Your task to perform on an android device: Open Google Chrome and click the shortcut for Amazon.com Image 0: 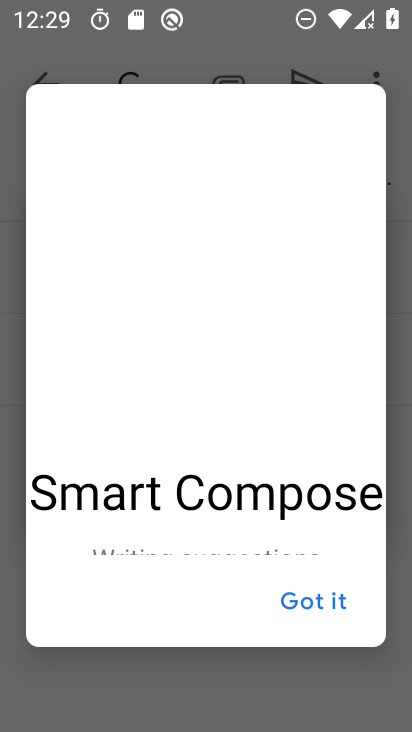
Step 0: press home button
Your task to perform on an android device: Open Google Chrome and click the shortcut for Amazon.com Image 1: 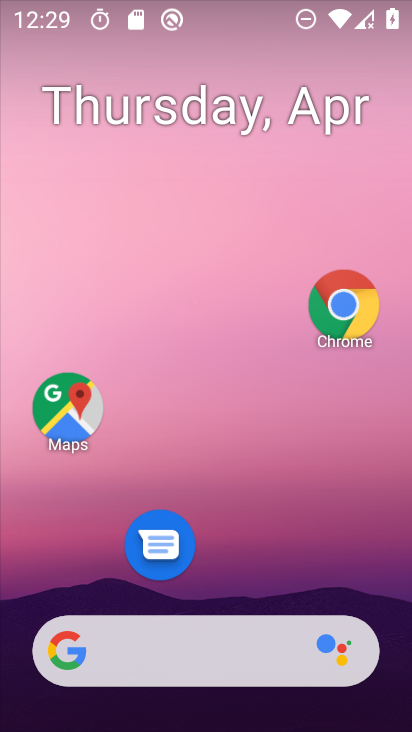
Step 1: drag from (246, 582) to (321, 217)
Your task to perform on an android device: Open Google Chrome and click the shortcut for Amazon.com Image 2: 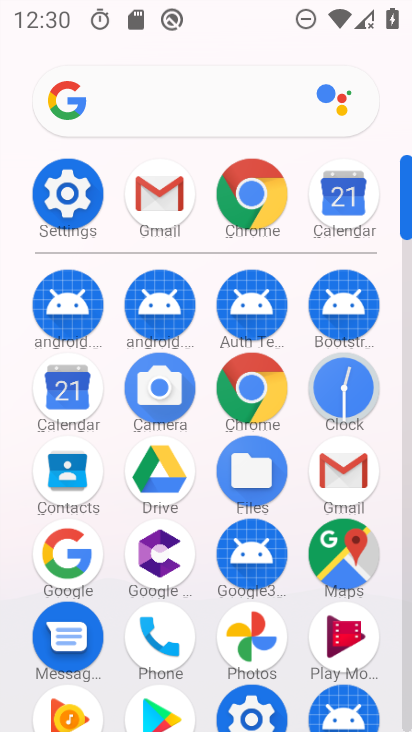
Step 2: click (254, 376)
Your task to perform on an android device: Open Google Chrome and click the shortcut for Amazon.com Image 3: 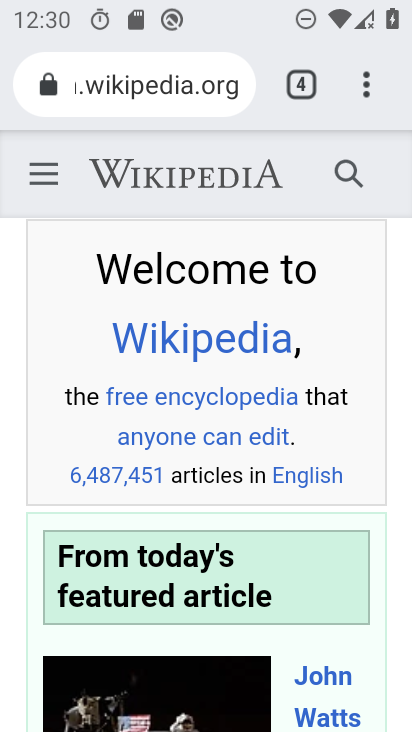
Step 3: click (214, 83)
Your task to perform on an android device: Open Google Chrome and click the shortcut for Amazon.com Image 4: 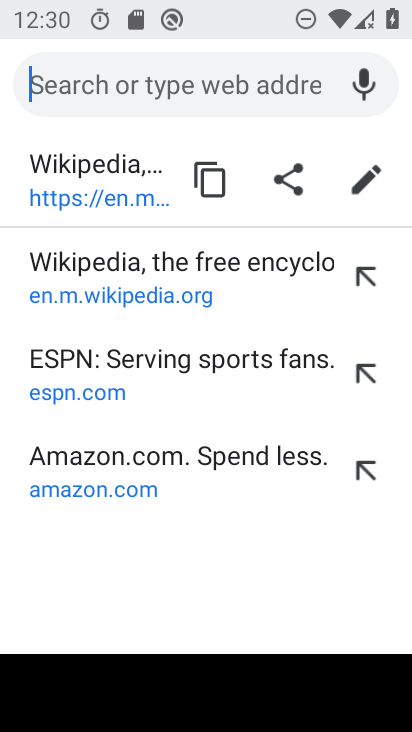
Step 4: click (215, 471)
Your task to perform on an android device: Open Google Chrome and click the shortcut for Amazon.com Image 5: 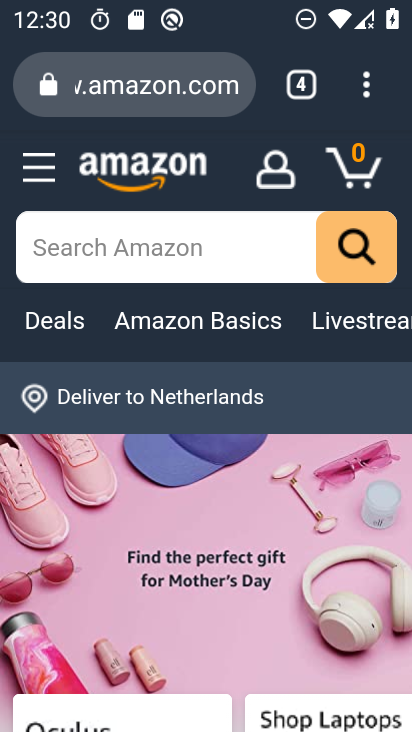
Step 5: task complete